Your task to perform on an android device: See recent photos Image 0: 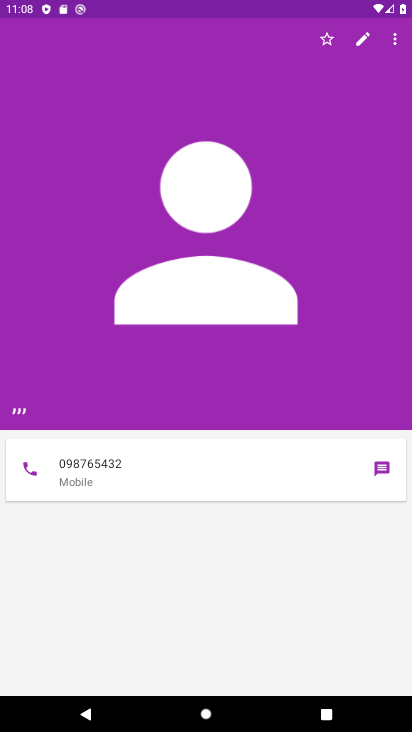
Step 0: press home button
Your task to perform on an android device: See recent photos Image 1: 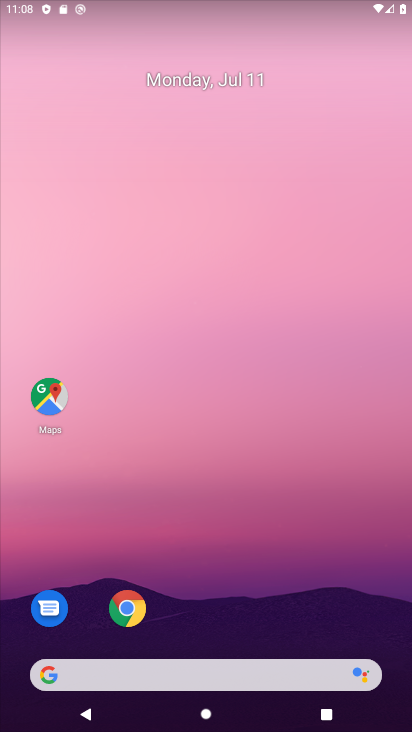
Step 1: drag from (174, 637) to (251, 50)
Your task to perform on an android device: See recent photos Image 2: 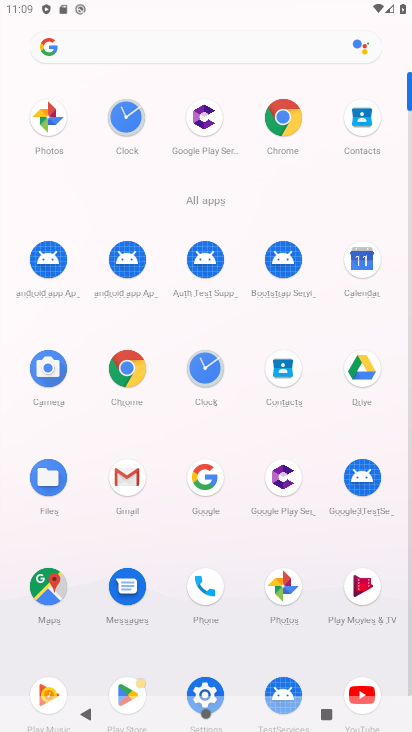
Step 2: click (48, 119)
Your task to perform on an android device: See recent photos Image 3: 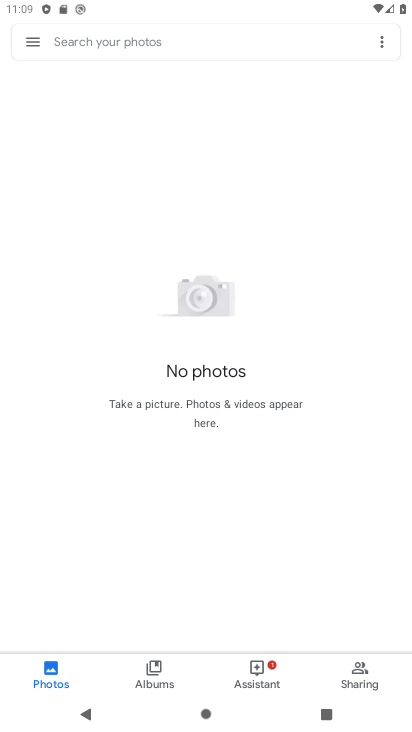
Step 3: task complete